Your task to perform on an android device: Find coffee shops on Maps Image 0: 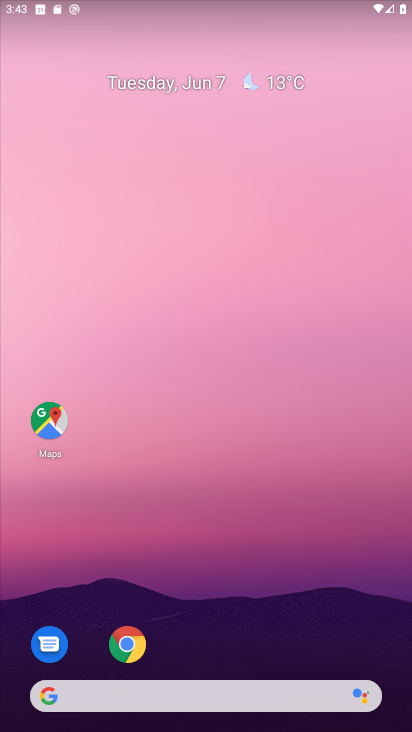
Step 0: drag from (314, 616) to (314, 168)
Your task to perform on an android device: Find coffee shops on Maps Image 1: 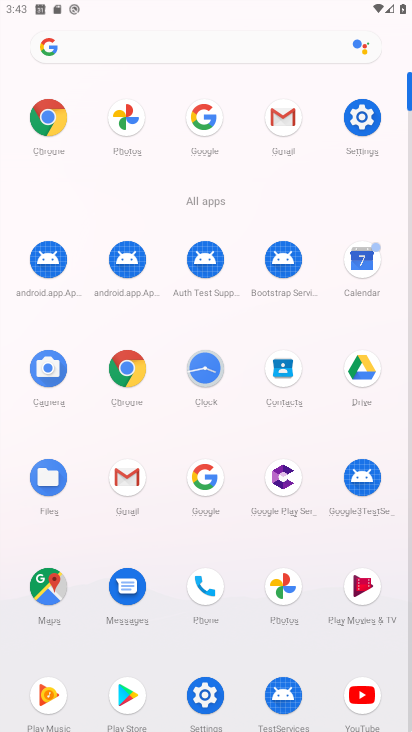
Step 1: drag from (240, 619) to (249, 413)
Your task to perform on an android device: Find coffee shops on Maps Image 2: 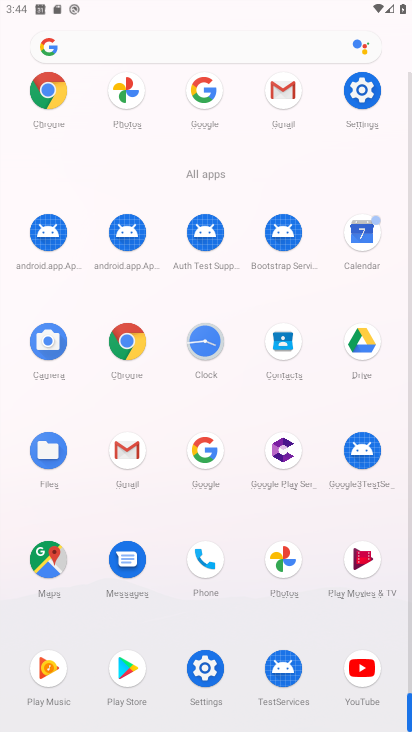
Step 2: click (47, 564)
Your task to perform on an android device: Find coffee shops on Maps Image 3: 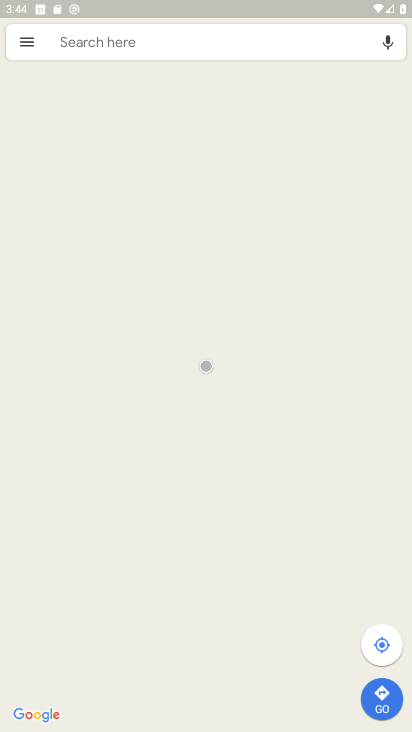
Step 3: click (175, 38)
Your task to perform on an android device: Find coffee shops on Maps Image 4: 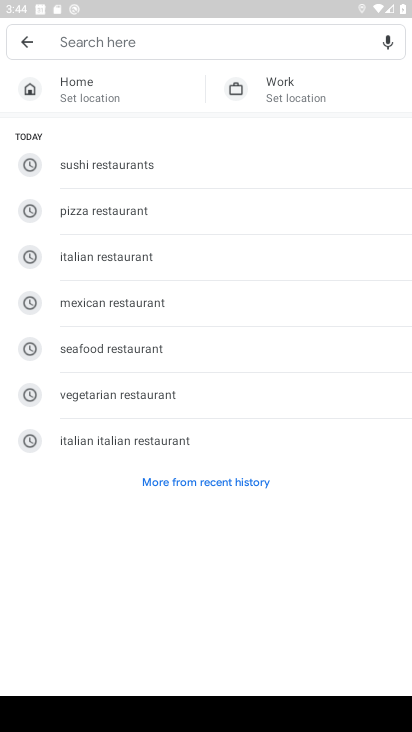
Step 4: type "coffee"
Your task to perform on an android device: Find coffee shops on Maps Image 5: 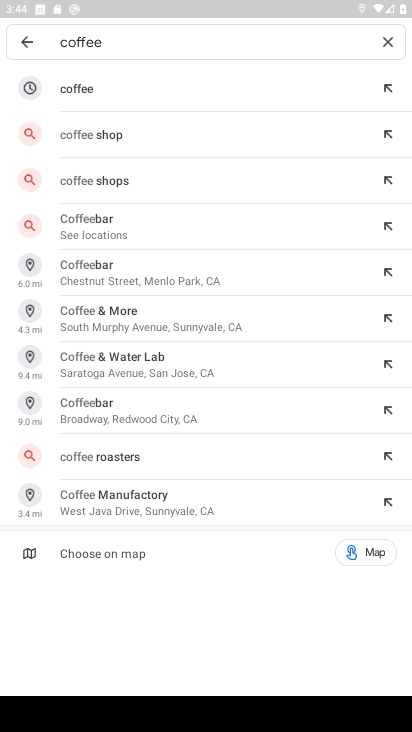
Step 5: click (139, 97)
Your task to perform on an android device: Find coffee shops on Maps Image 6: 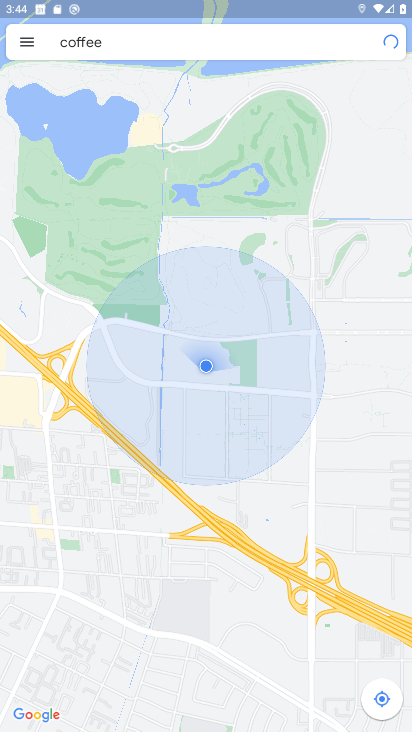
Step 6: click (114, 91)
Your task to perform on an android device: Find coffee shops on Maps Image 7: 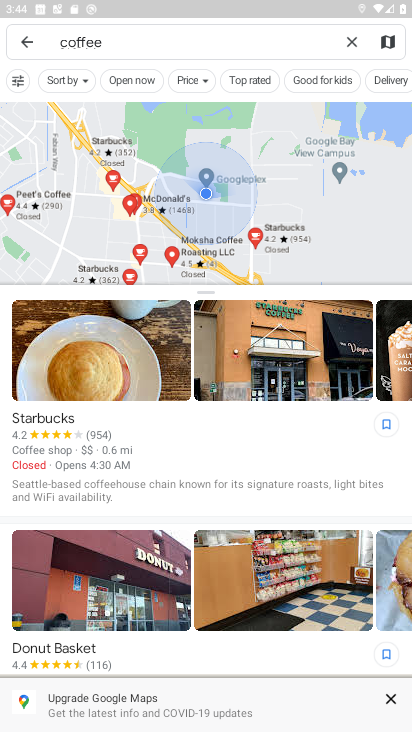
Step 7: task complete